Your task to perform on an android device: Is it going to rain tomorrow? Image 0: 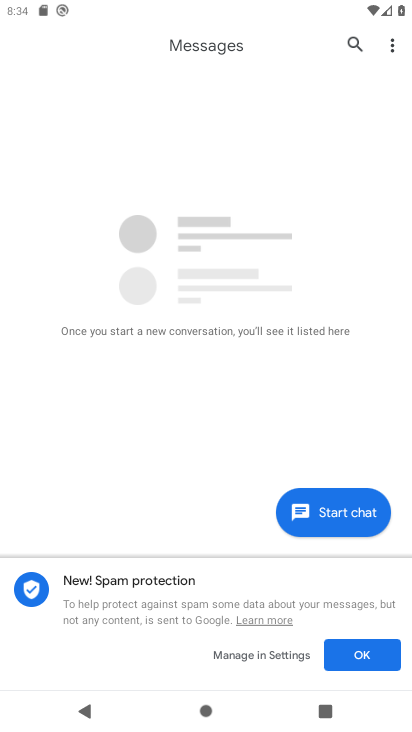
Step 0: press home button
Your task to perform on an android device: Is it going to rain tomorrow? Image 1: 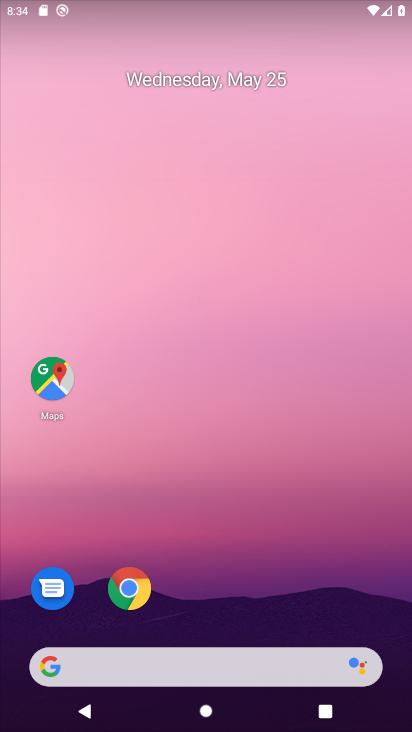
Step 1: click (215, 669)
Your task to perform on an android device: Is it going to rain tomorrow? Image 2: 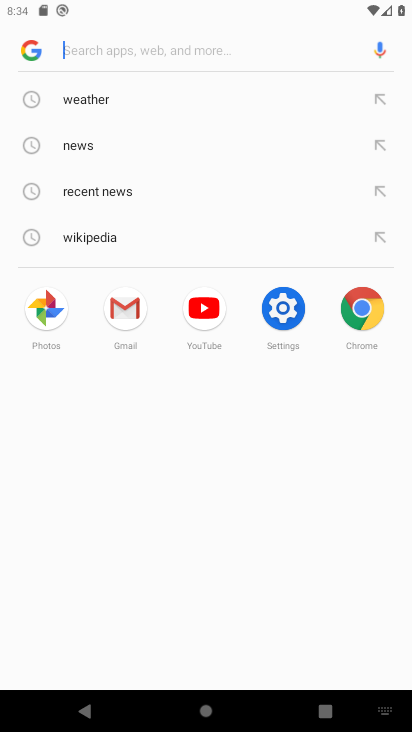
Step 2: click (100, 104)
Your task to perform on an android device: Is it going to rain tomorrow? Image 3: 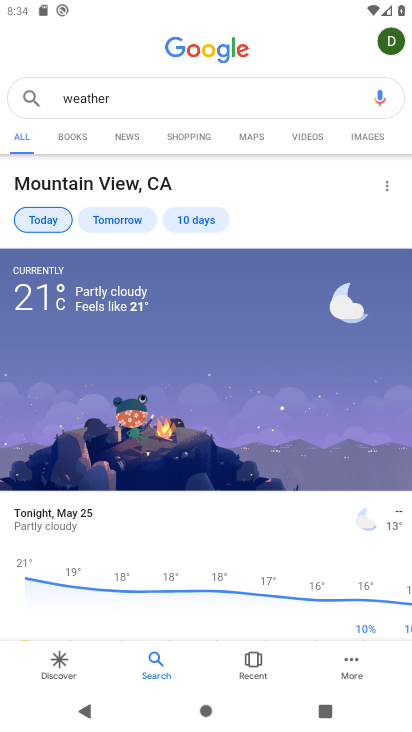
Step 3: click (120, 217)
Your task to perform on an android device: Is it going to rain tomorrow? Image 4: 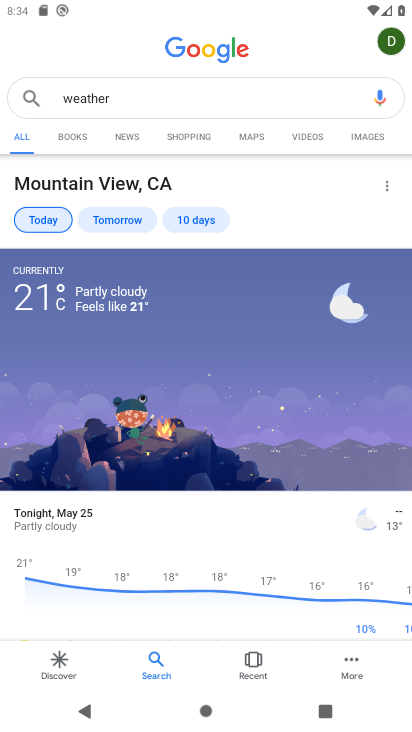
Step 4: click (120, 217)
Your task to perform on an android device: Is it going to rain tomorrow? Image 5: 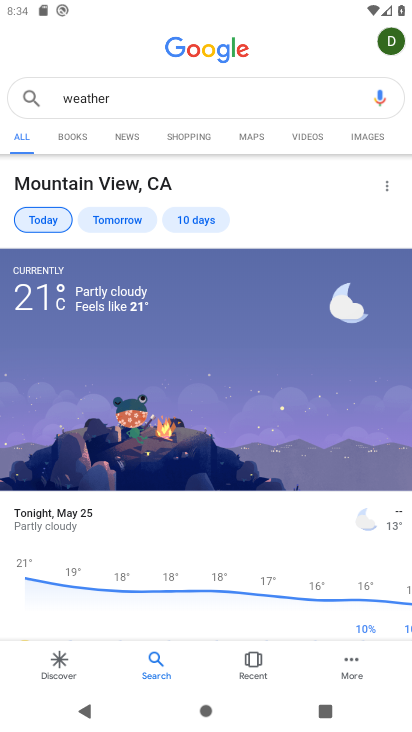
Step 5: click (120, 217)
Your task to perform on an android device: Is it going to rain tomorrow? Image 6: 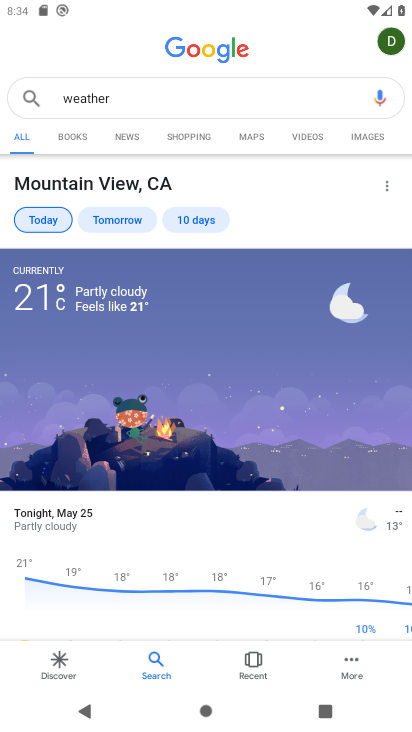
Step 6: click (120, 217)
Your task to perform on an android device: Is it going to rain tomorrow? Image 7: 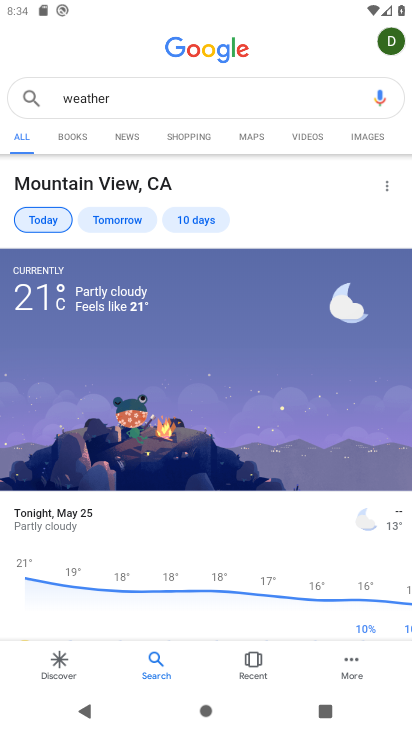
Step 7: click (120, 217)
Your task to perform on an android device: Is it going to rain tomorrow? Image 8: 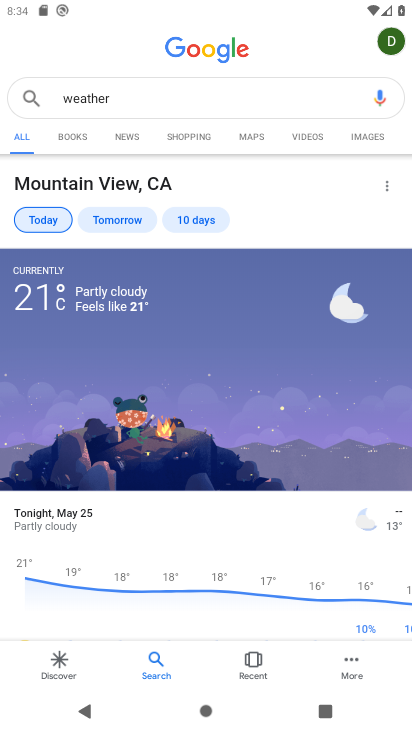
Step 8: click (120, 217)
Your task to perform on an android device: Is it going to rain tomorrow? Image 9: 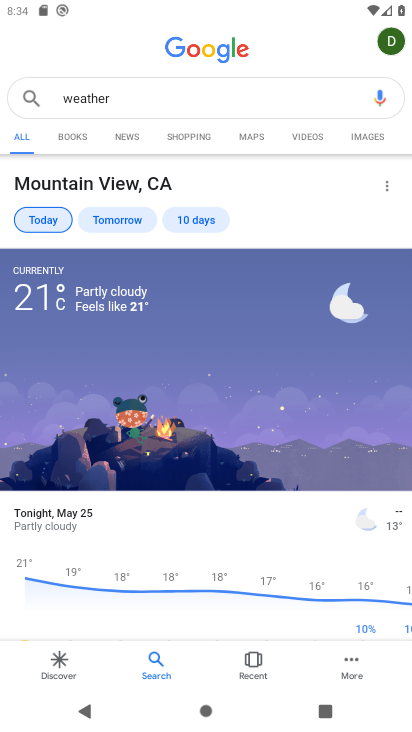
Step 9: click (120, 217)
Your task to perform on an android device: Is it going to rain tomorrow? Image 10: 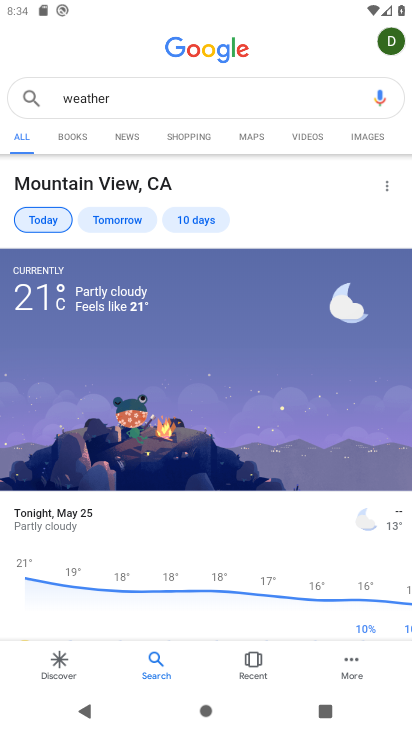
Step 10: click (120, 217)
Your task to perform on an android device: Is it going to rain tomorrow? Image 11: 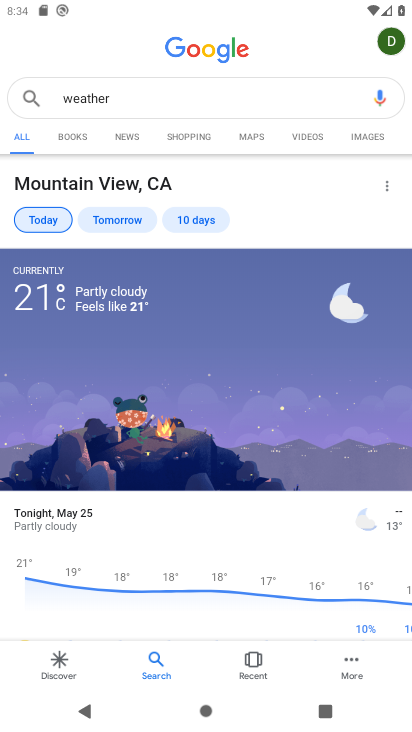
Step 11: click (120, 217)
Your task to perform on an android device: Is it going to rain tomorrow? Image 12: 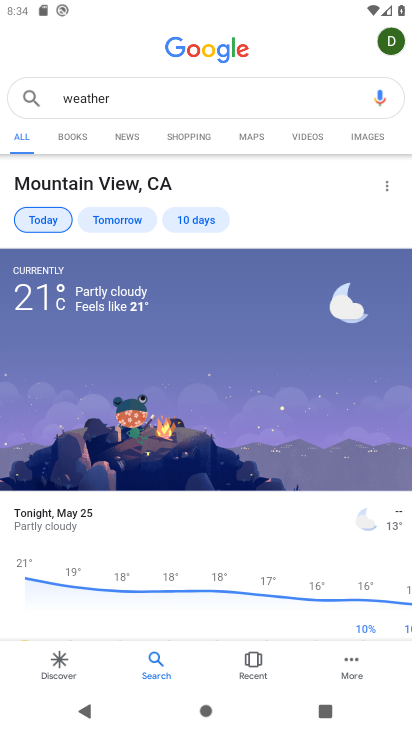
Step 12: click (120, 217)
Your task to perform on an android device: Is it going to rain tomorrow? Image 13: 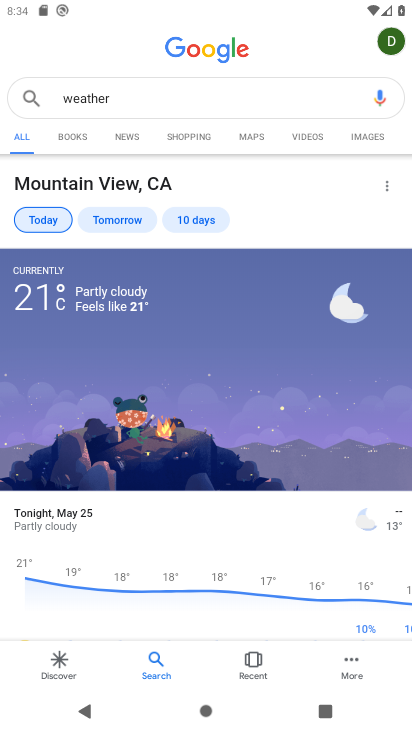
Step 13: click (120, 217)
Your task to perform on an android device: Is it going to rain tomorrow? Image 14: 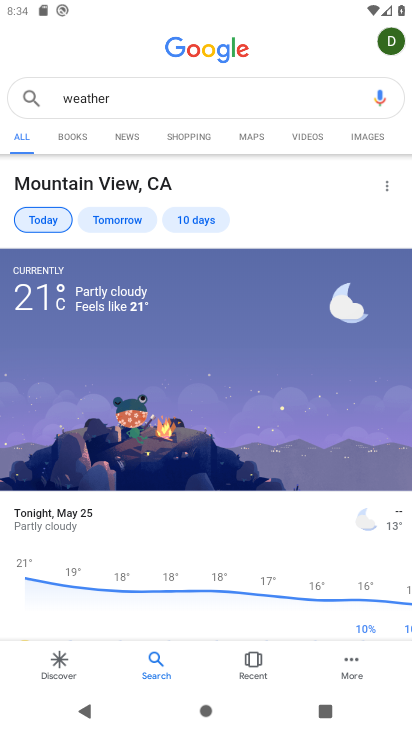
Step 14: click (120, 217)
Your task to perform on an android device: Is it going to rain tomorrow? Image 15: 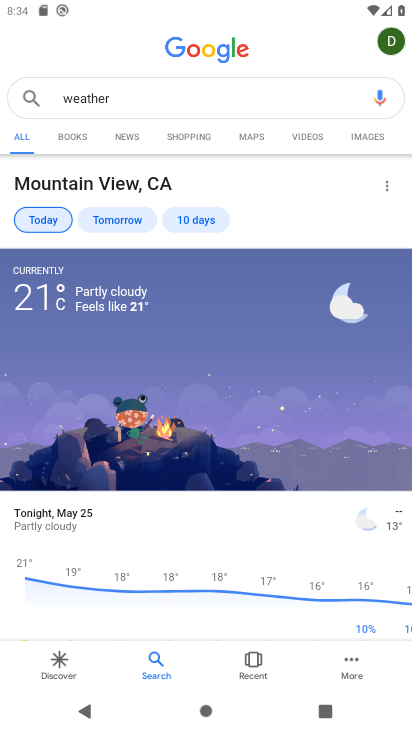
Step 15: click (120, 217)
Your task to perform on an android device: Is it going to rain tomorrow? Image 16: 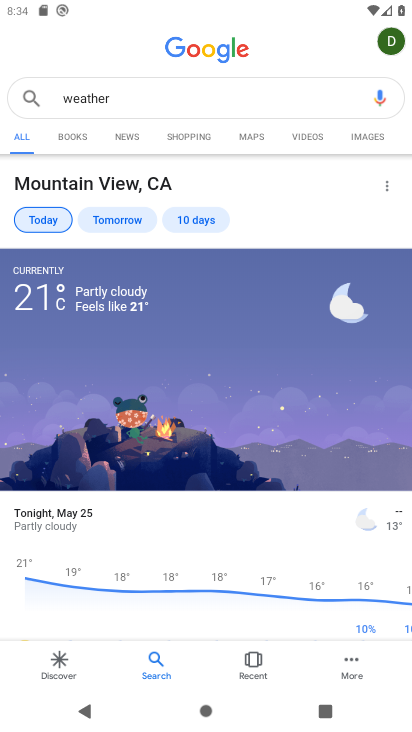
Step 16: click (120, 217)
Your task to perform on an android device: Is it going to rain tomorrow? Image 17: 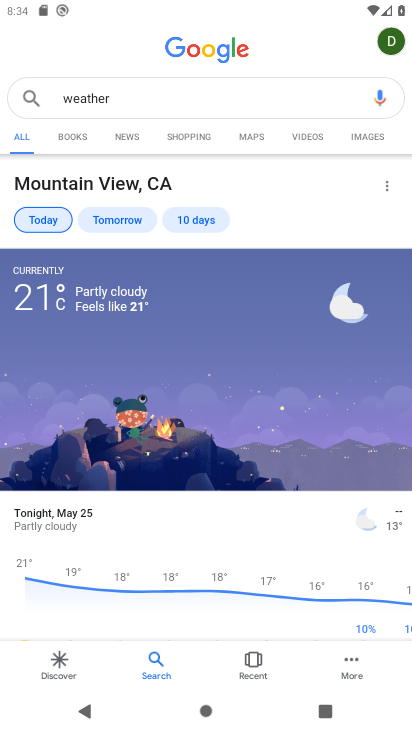
Step 17: click (120, 217)
Your task to perform on an android device: Is it going to rain tomorrow? Image 18: 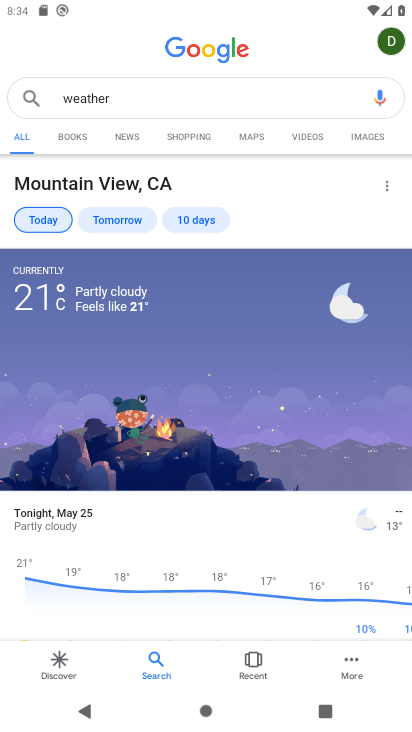
Step 18: click (120, 217)
Your task to perform on an android device: Is it going to rain tomorrow? Image 19: 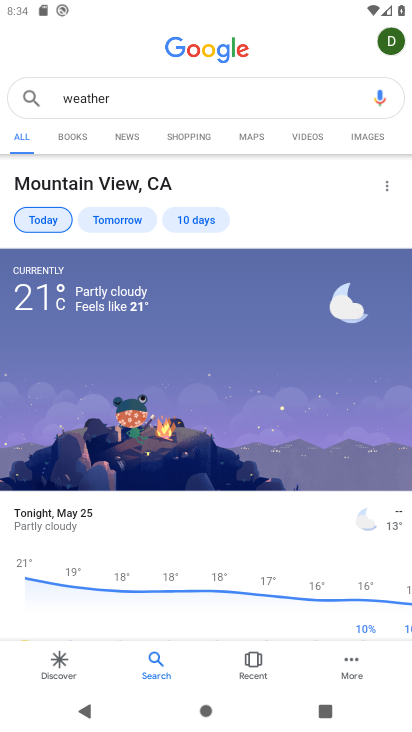
Step 19: click (120, 217)
Your task to perform on an android device: Is it going to rain tomorrow? Image 20: 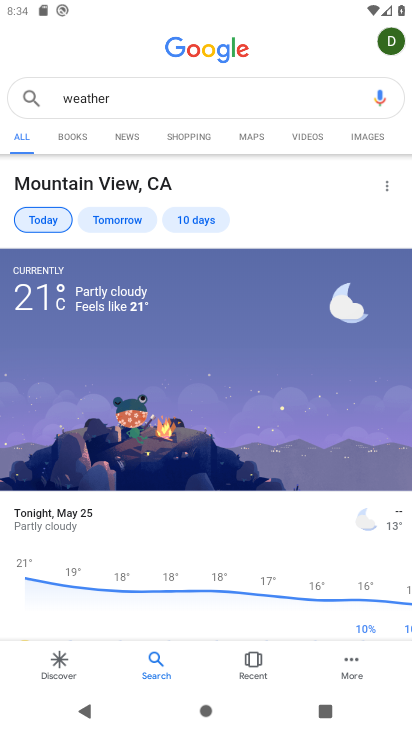
Step 20: click (120, 217)
Your task to perform on an android device: Is it going to rain tomorrow? Image 21: 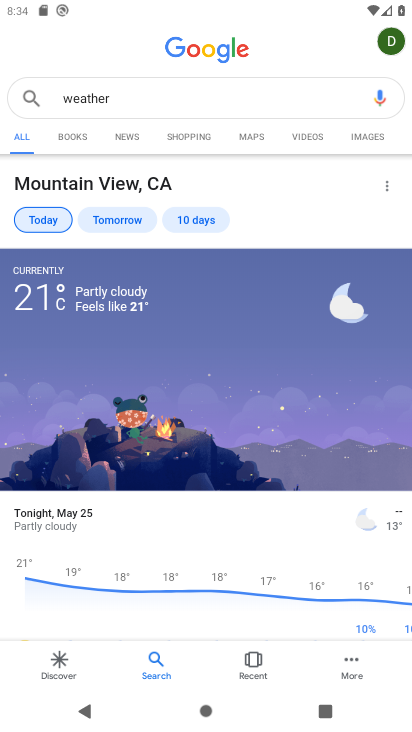
Step 21: click (120, 217)
Your task to perform on an android device: Is it going to rain tomorrow? Image 22: 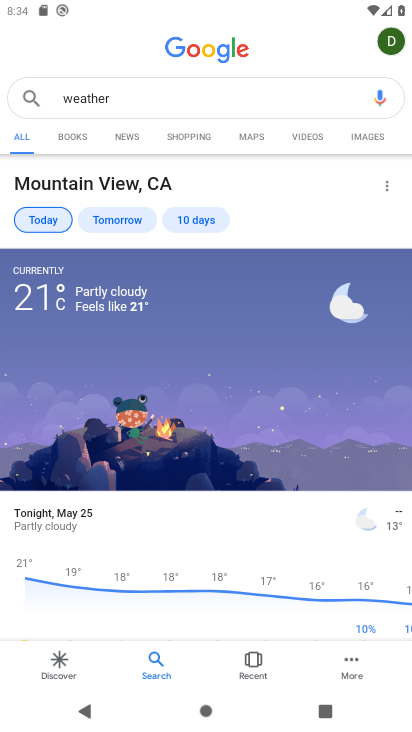
Step 22: task complete